Your task to perform on an android device: Clear all items from cart on ebay. Add lenovo thinkpad to the cart on ebay Image 0: 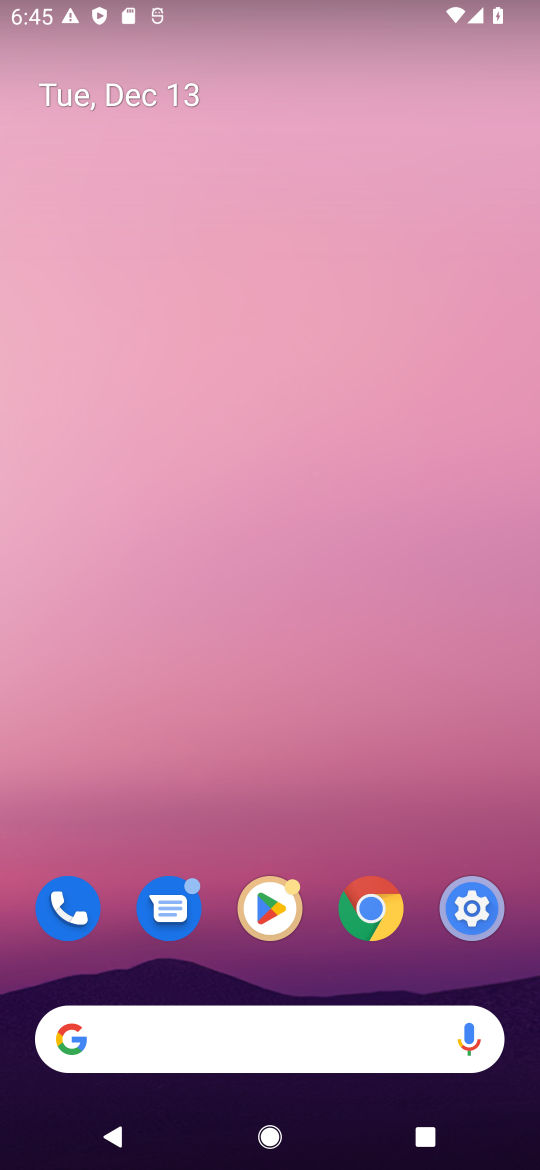
Step 0: click (145, 1035)
Your task to perform on an android device: Clear all items from cart on ebay. Add lenovo thinkpad to the cart on ebay Image 1: 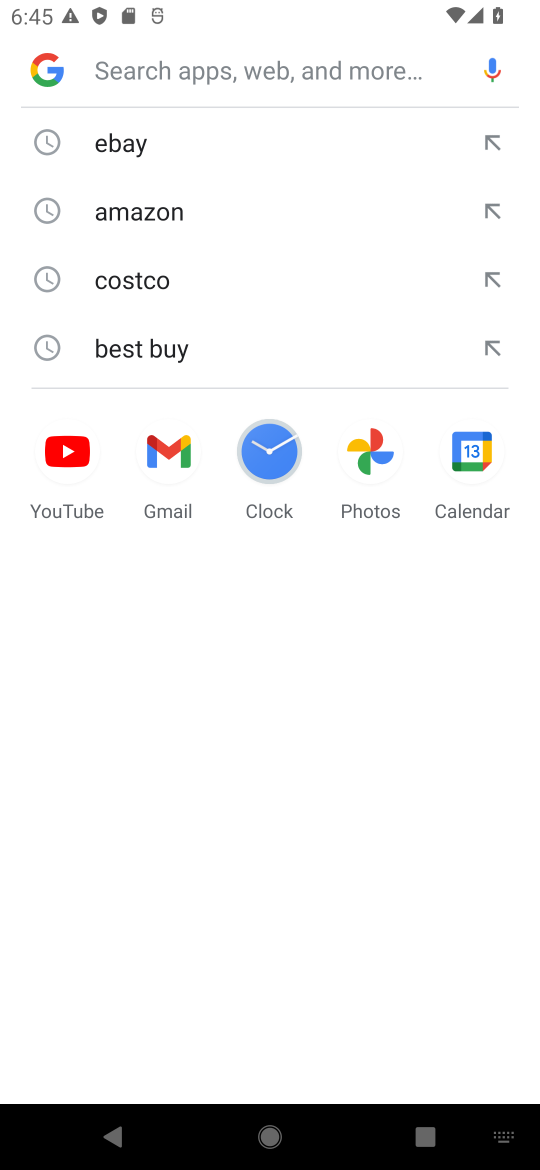
Step 1: type "ebay"
Your task to perform on an android device: Clear all items from cart on ebay. Add lenovo thinkpad to the cart on ebay Image 2: 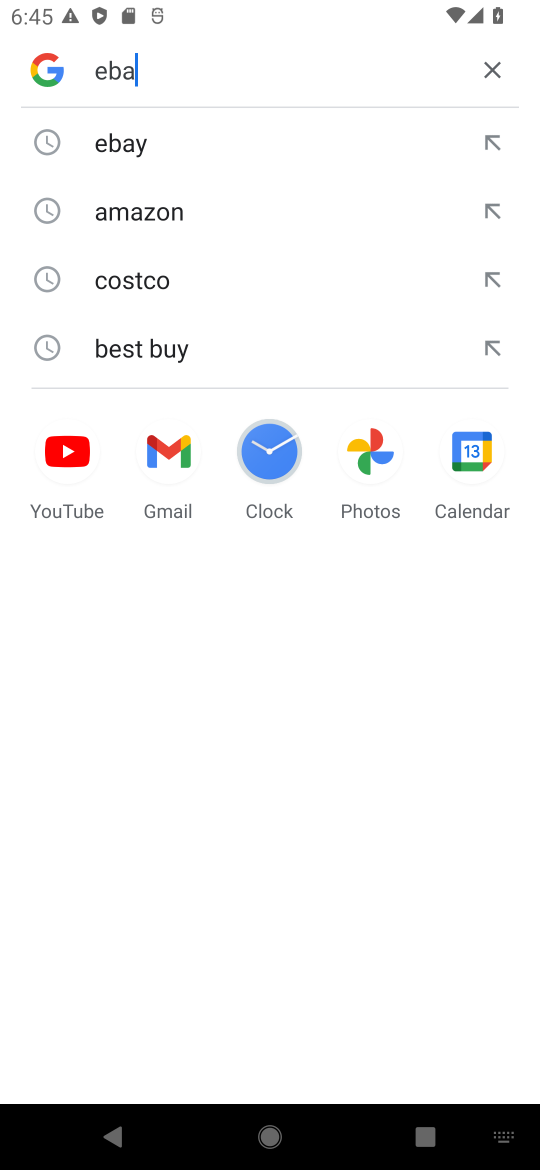
Step 2: press enter
Your task to perform on an android device: Clear all items from cart on ebay. Add lenovo thinkpad to the cart on ebay Image 3: 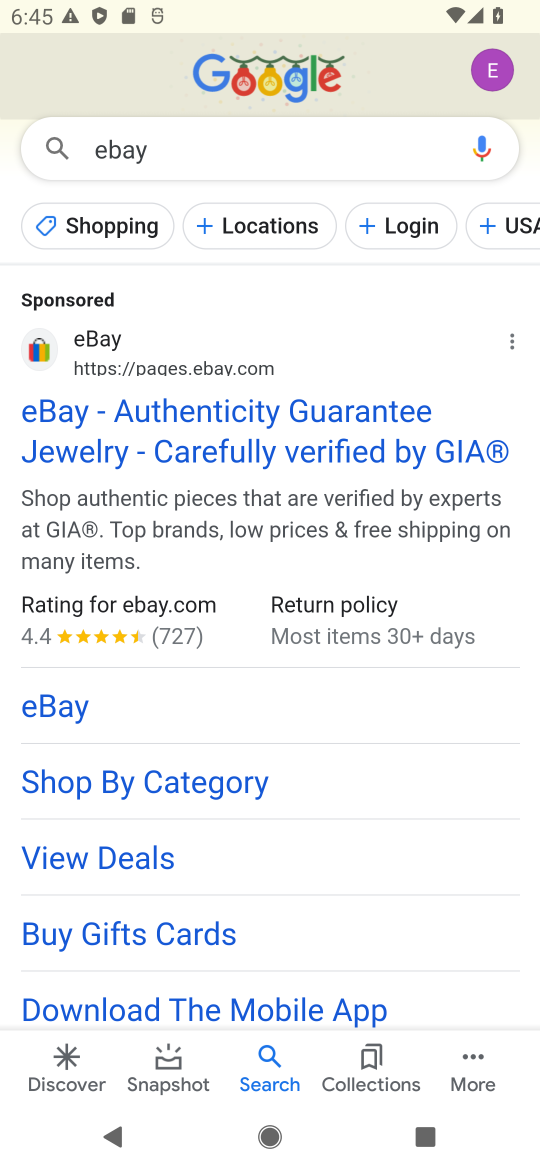
Step 3: click (314, 445)
Your task to perform on an android device: Clear all items from cart on ebay. Add lenovo thinkpad to the cart on ebay Image 4: 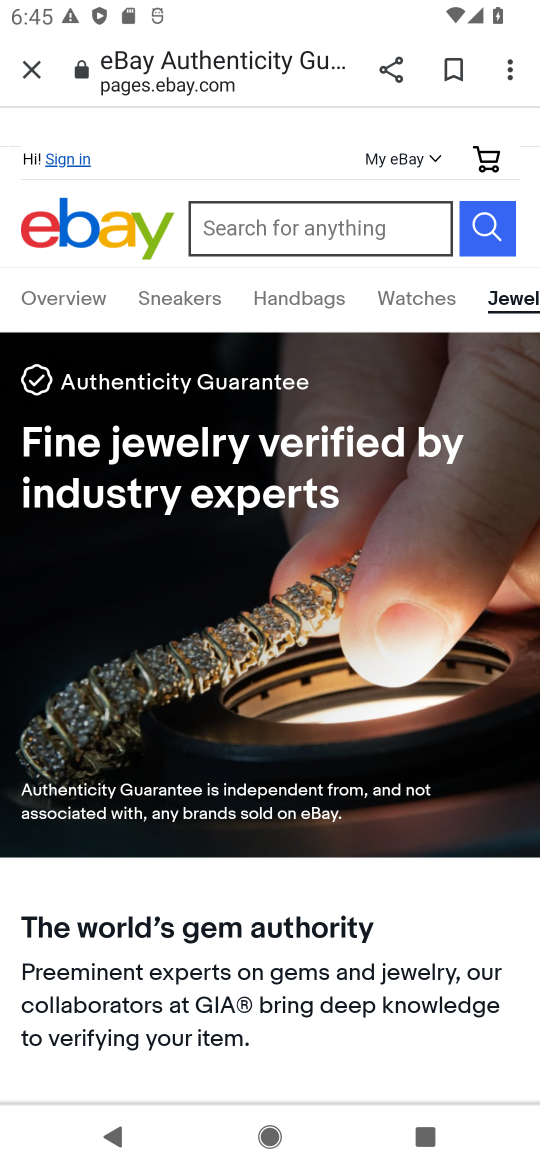
Step 4: click (482, 159)
Your task to perform on an android device: Clear all items from cart on ebay. Add lenovo thinkpad to the cart on ebay Image 5: 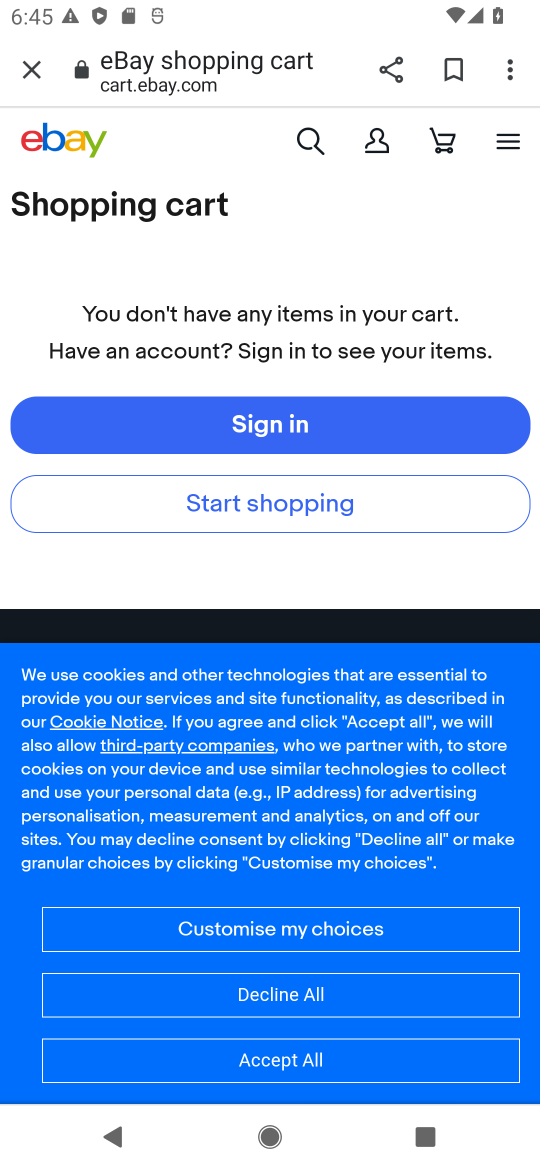
Step 5: click (306, 127)
Your task to perform on an android device: Clear all items from cart on ebay. Add lenovo thinkpad to the cart on ebay Image 6: 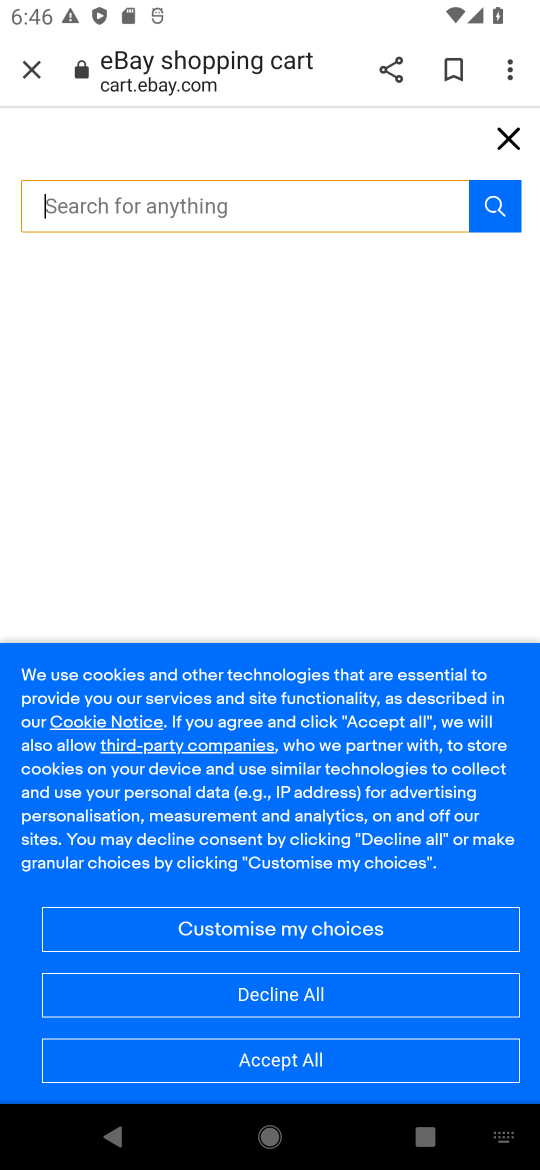
Step 6: click (172, 199)
Your task to perform on an android device: Clear all items from cart on ebay. Add lenovo thinkpad to the cart on ebay Image 7: 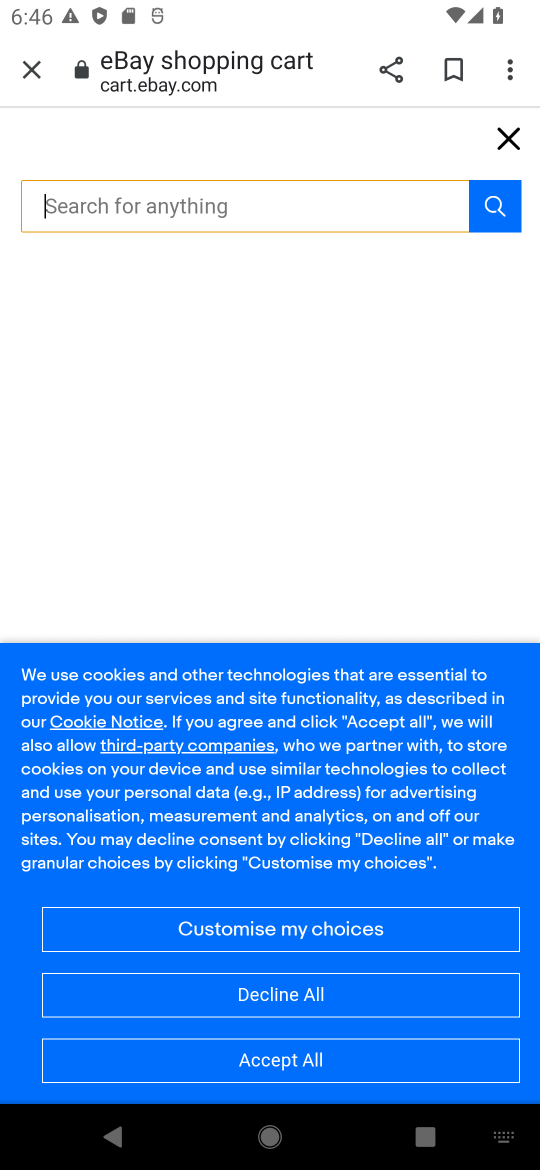
Step 7: type "lenovo thinkpad"
Your task to perform on an android device: Clear all items from cart on ebay. Add lenovo thinkpad to the cart on ebay Image 8: 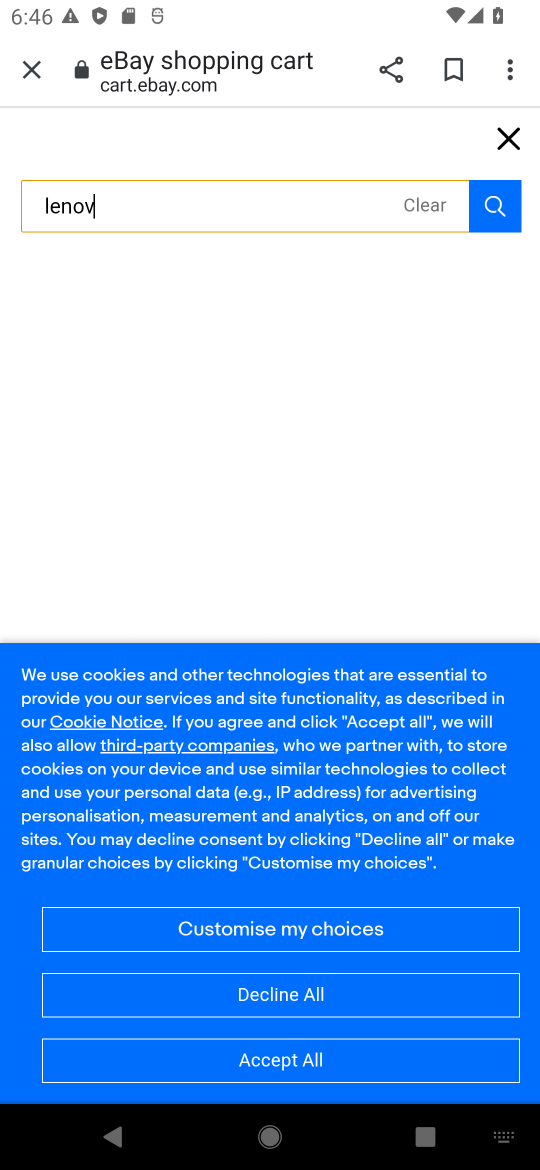
Step 8: press enter
Your task to perform on an android device: Clear all items from cart on ebay. Add lenovo thinkpad to the cart on ebay Image 9: 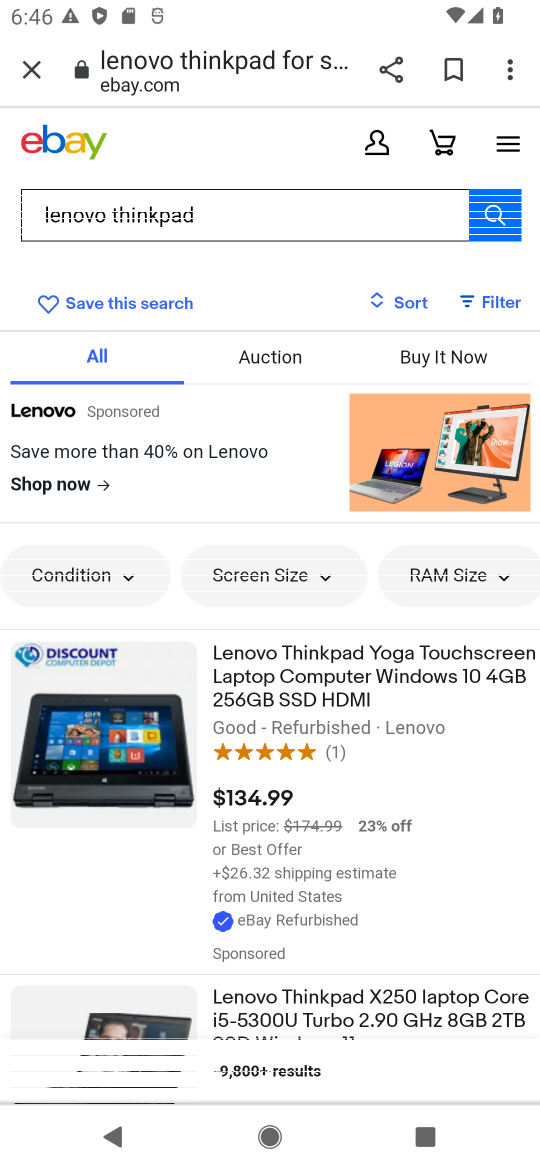
Step 9: drag from (361, 951) to (379, 586)
Your task to perform on an android device: Clear all items from cart on ebay. Add lenovo thinkpad to the cart on ebay Image 10: 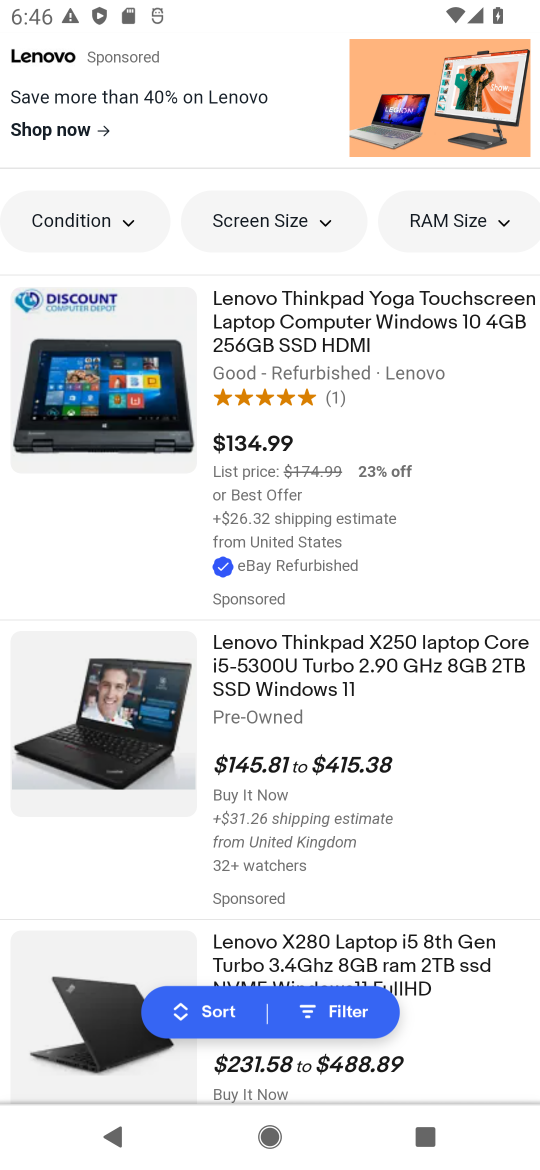
Step 10: drag from (360, 883) to (375, 560)
Your task to perform on an android device: Clear all items from cart on ebay. Add lenovo thinkpad to the cart on ebay Image 11: 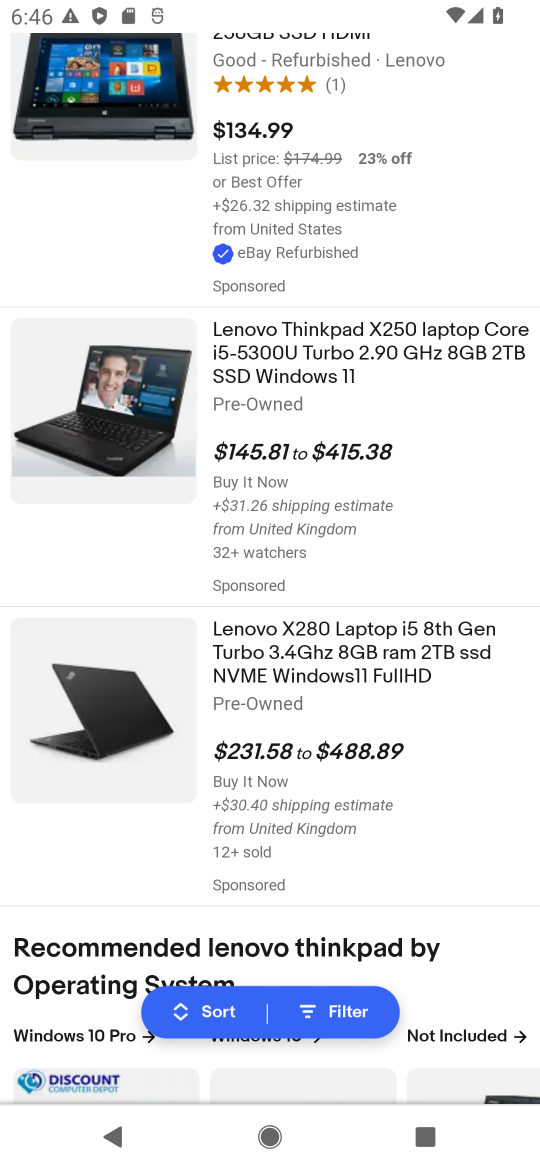
Step 11: drag from (348, 891) to (367, 614)
Your task to perform on an android device: Clear all items from cart on ebay. Add lenovo thinkpad to the cart on ebay Image 12: 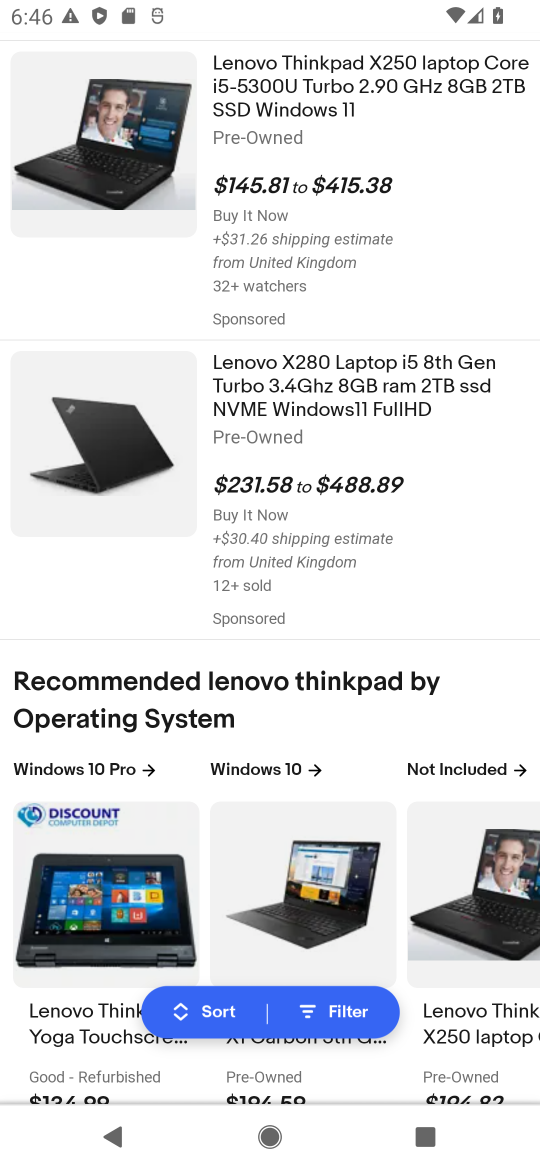
Step 12: drag from (369, 233) to (376, 789)
Your task to perform on an android device: Clear all items from cart on ebay. Add lenovo thinkpad to the cart on ebay Image 13: 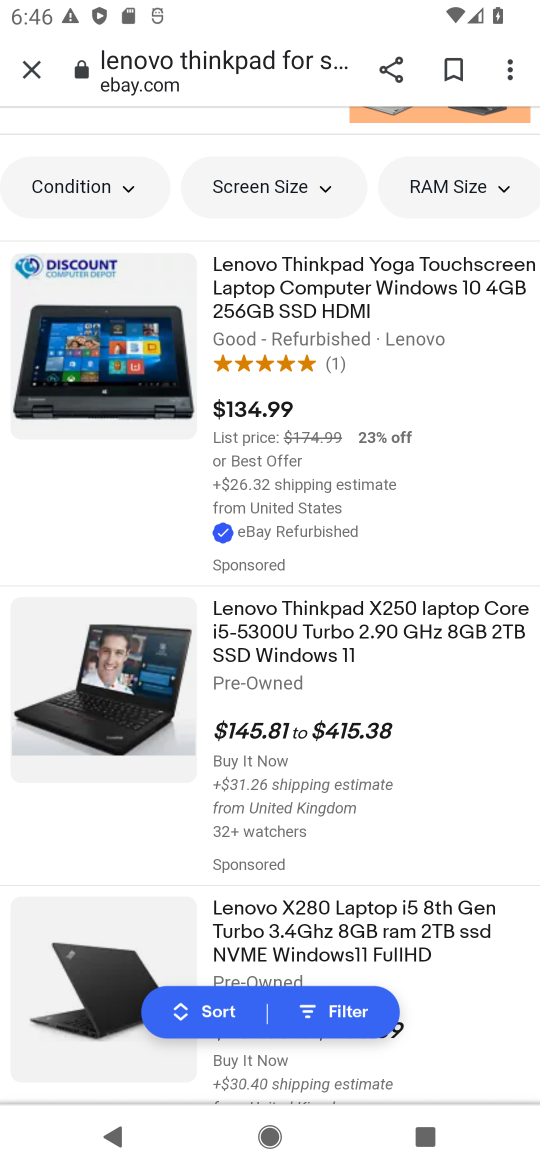
Step 13: drag from (366, 396) to (389, 691)
Your task to perform on an android device: Clear all items from cart on ebay. Add lenovo thinkpad to the cart on ebay Image 14: 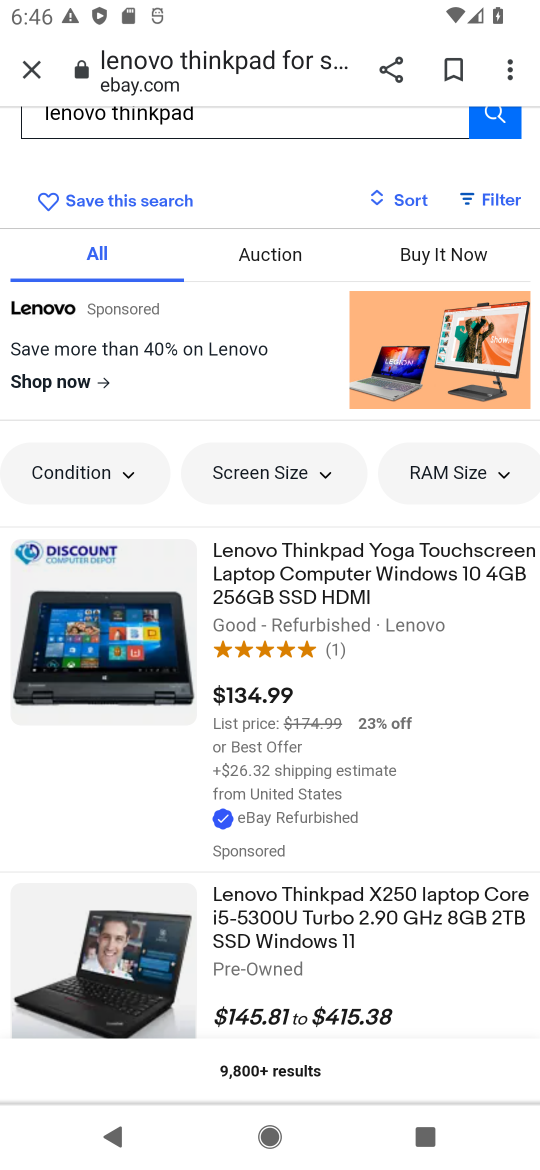
Step 14: click (280, 590)
Your task to perform on an android device: Clear all items from cart on ebay. Add lenovo thinkpad to the cart on ebay Image 15: 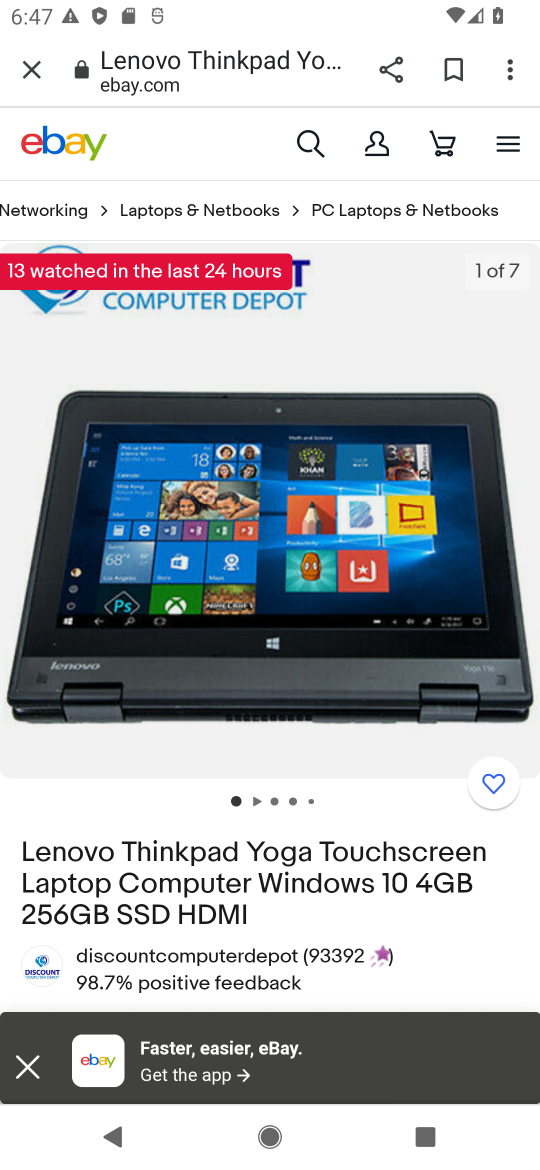
Step 15: drag from (384, 975) to (374, 452)
Your task to perform on an android device: Clear all items from cart on ebay. Add lenovo thinkpad to the cart on ebay Image 16: 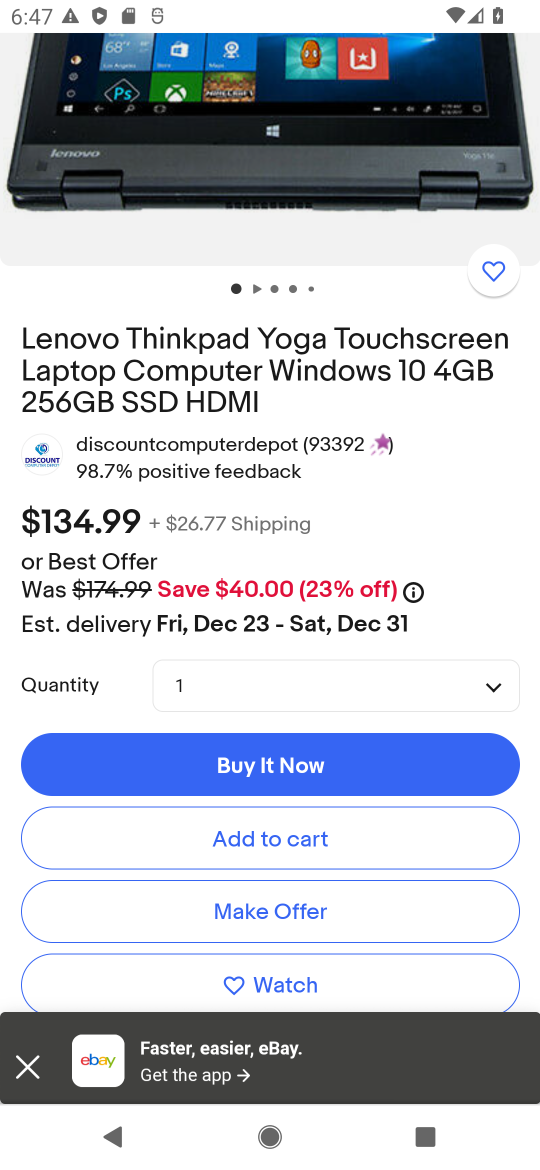
Step 16: drag from (373, 865) to (389, 411)
Your task to perform on an android device: Clear all items from cart on ebay. Add lenovo thinkpad to the cart on ebay Image 17: 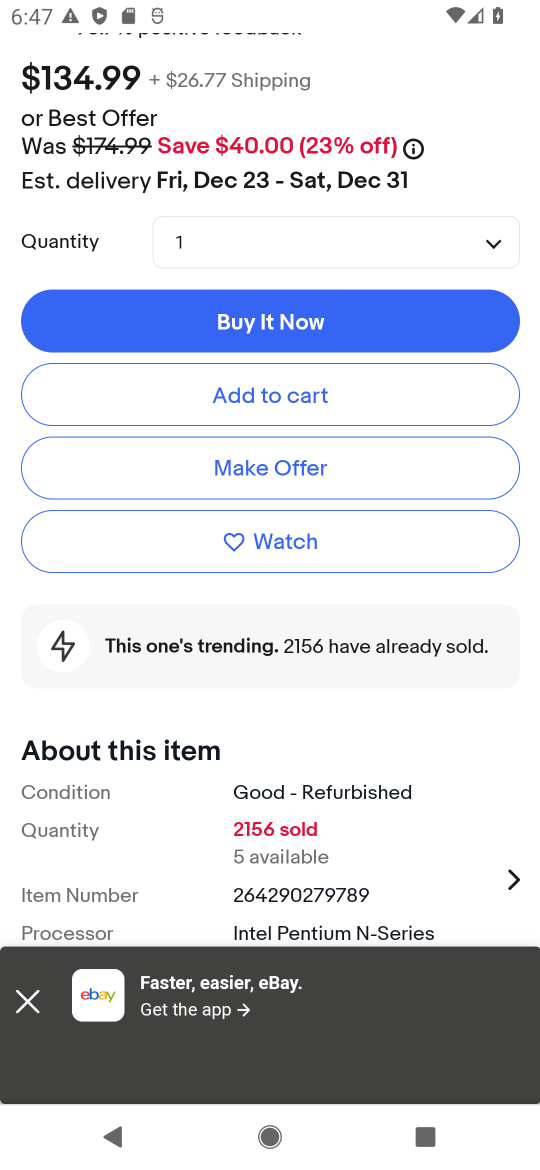
Step 17: click (266, 390)
Your task to perform on an android device: Clear all items from cart on ebay. Add lenovo thinkpad to the cart on ebay Image 18: 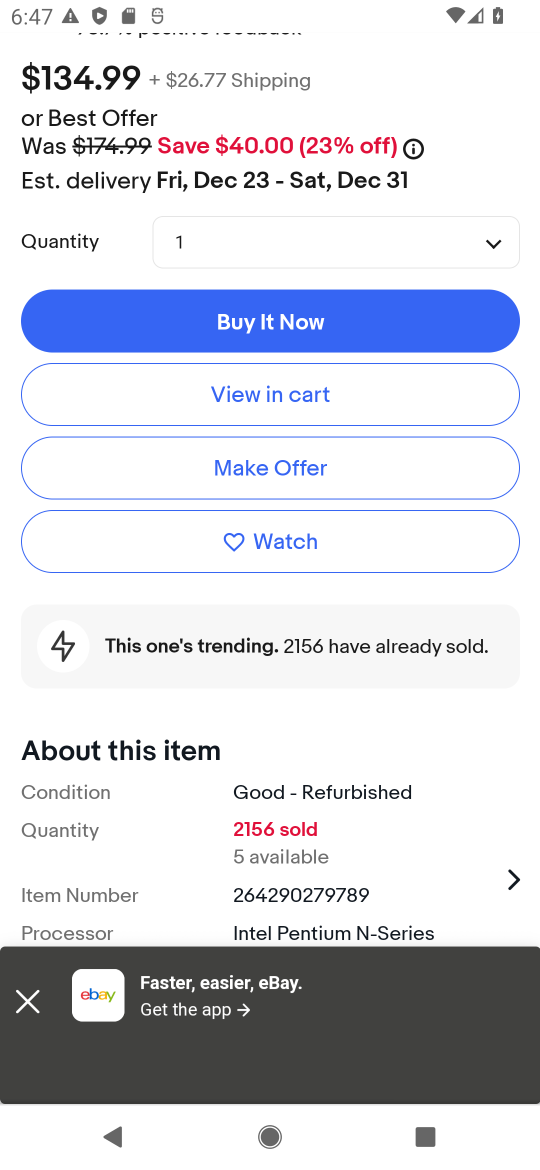
Step 18: task complete